Your task to perform on an android device: Go to internet settings Image 0: 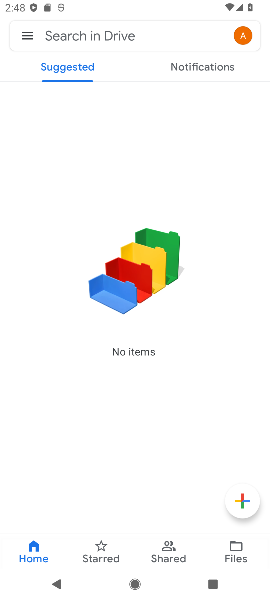
Step 0: press home button
Your task to perform on an android device: Go to internet settings Image 1: 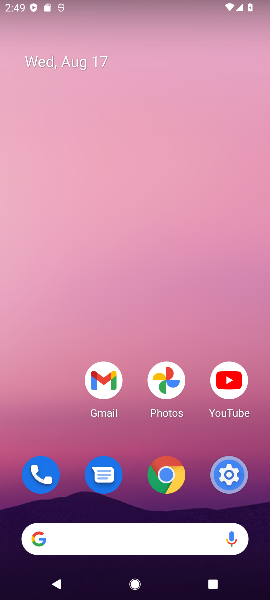
Step 1: click (221, 476)
Your task to perform on an android device: Go to internet settings Image 2: 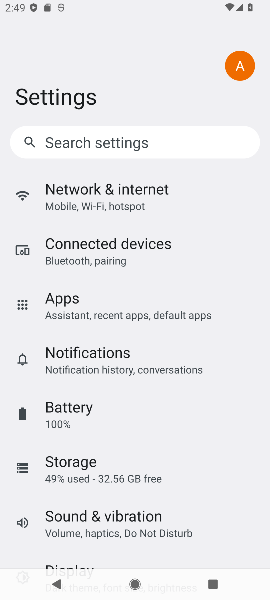
Step 2: click (99, 188)
Your task to perform on an android device: Go to internet settings Image 3: 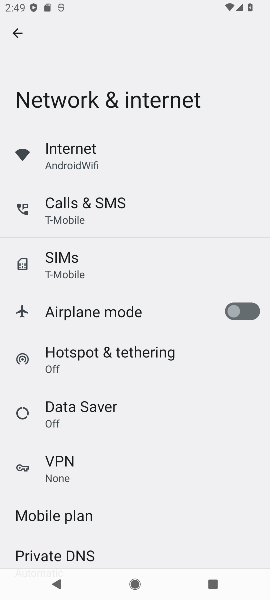
Step 3: click (104, 148)
Your task to perform on an android device: Go to internet settings Image 4: 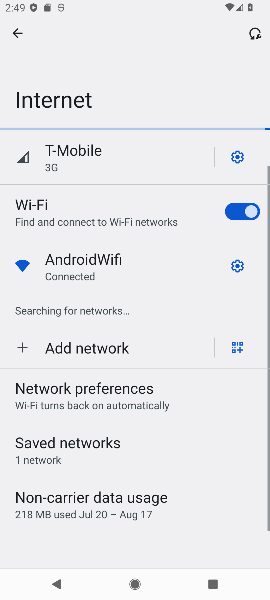
Step 4: task complete